Your task to perform on an android device: What's the weather? Image 0: 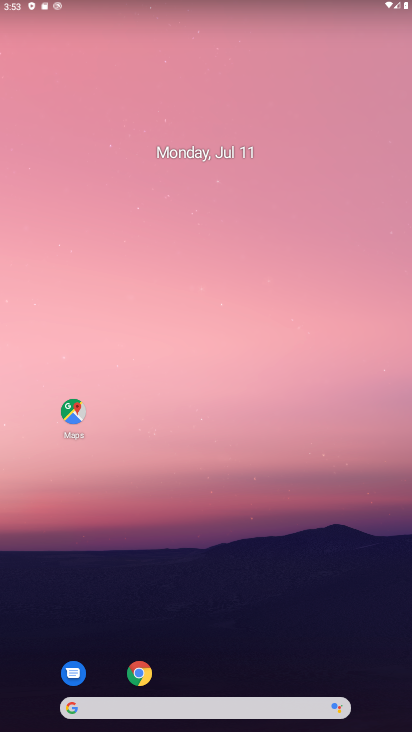
Step 0: drag from (145, 5) to (134, 531)
Your task to perform on an android device: What's the weather? Image 1: 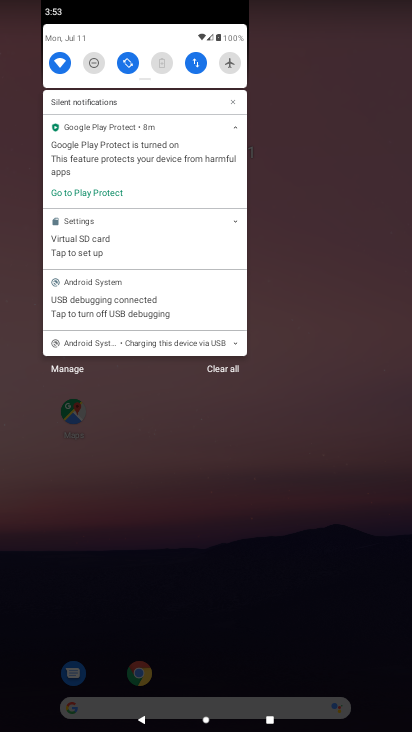
Step 1: drag from (373, 517) to (330, 8)
Your task to perform on an android device: What's the weather? Image 2: 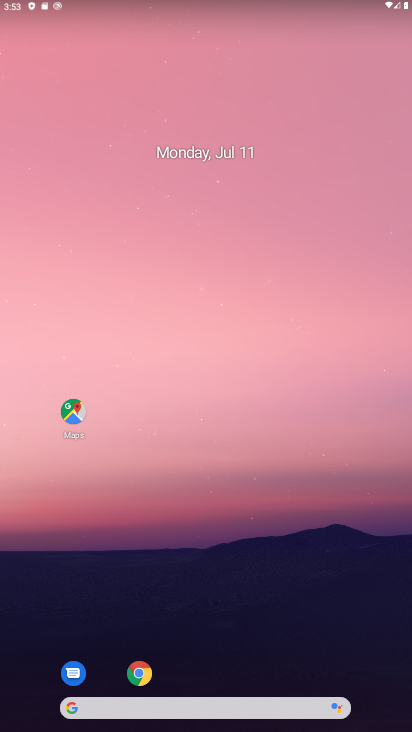
Step 2: drag from (356, 681) to (253, 59)
Your task to perform on an android device: What's the weather? Image 3: 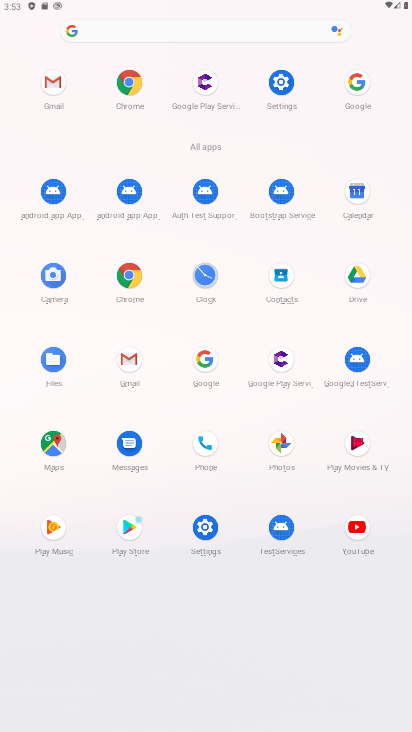
Step 3: click (201, 373)
Your task to perform on an android device: What's the weather? Image 4: 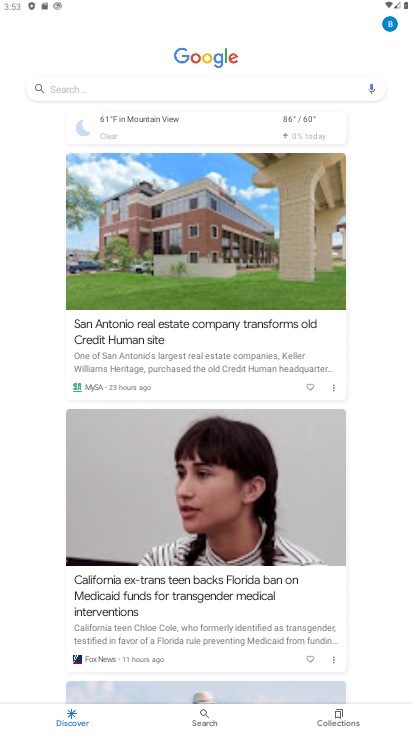
Step 4: click (115, 79)
Your task to perform on an android device: What's the weather? Image 5: 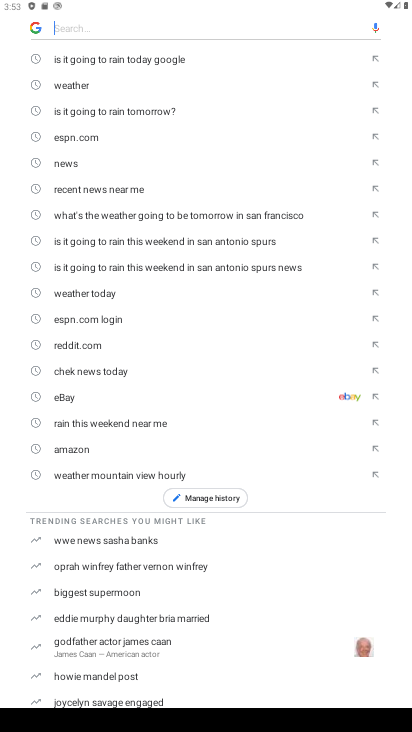
Step 5: click (87, 89)
Your task to perform on an android device: What's the weather? Image 6: 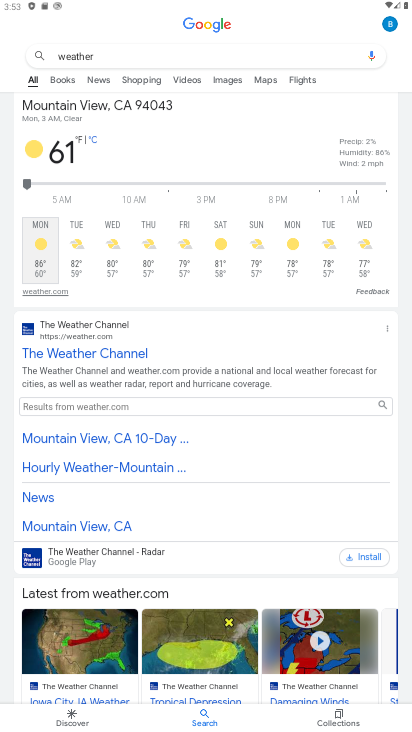
Step 6: task complete